Your task to perform on an android device: install app "Upside-Cash back on gas & food" Image 0: 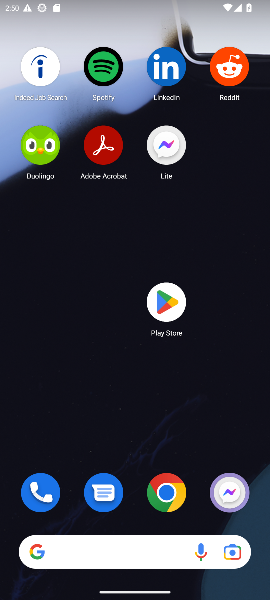
Step 0: click (164, 314)
Your task to perform on an android device: install app "Upside-Cash back on gas & food" Image 1: 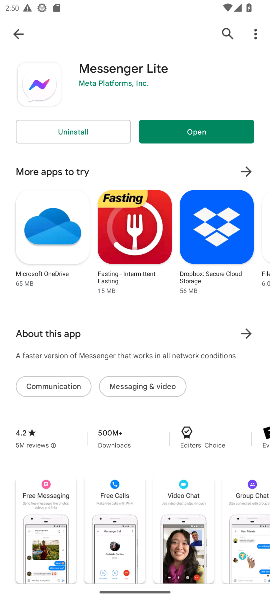
Step 1: click (229, 39)
Your task to perform on an android device: install app "Upside-Cash back on gas & food" Image 2: 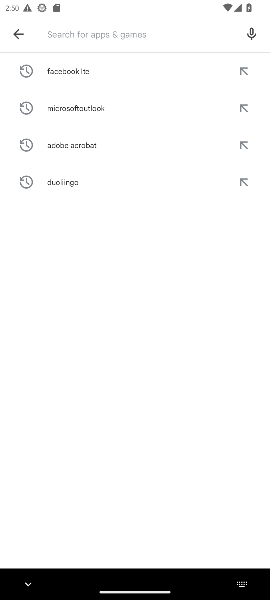
Step 2: type "upsde cash"
Your task to perform on an android device: install app "Upside-Cash back on gas & food" Image 3: 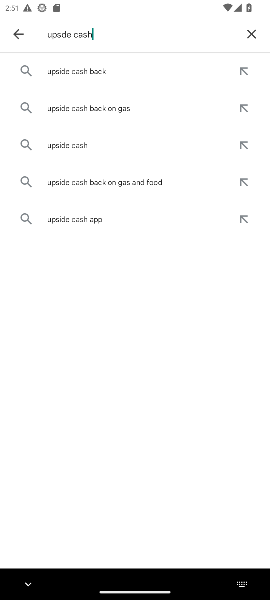
Step 3: click (106, 62)
Your task to perform on an android device: install app "Upside-Cash back on gas & food" Image 4: 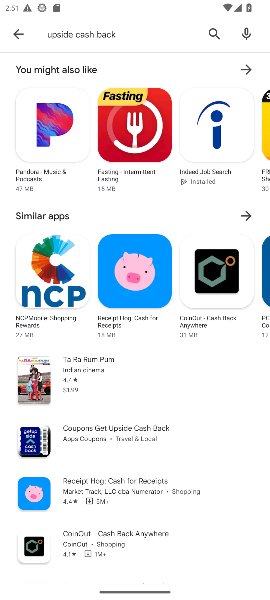
Step 4: task complete